Your task to perform on an android device: Go to Yahoo.com Image 0: 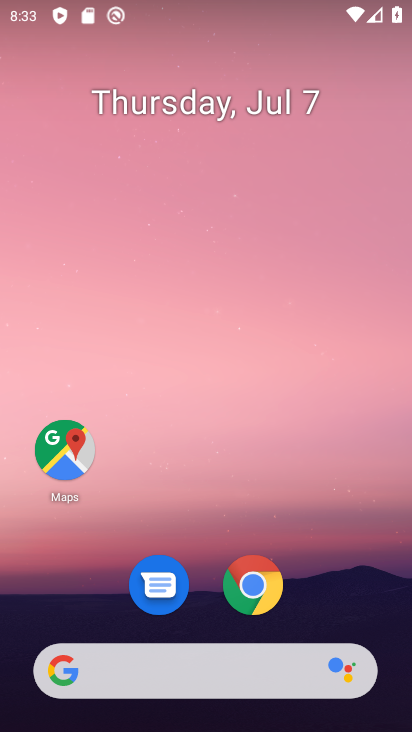
Step 0: drag from (284, 548) to (290, 16)
Your task to perform on an android device: Go to Yahoo.com Image 1: 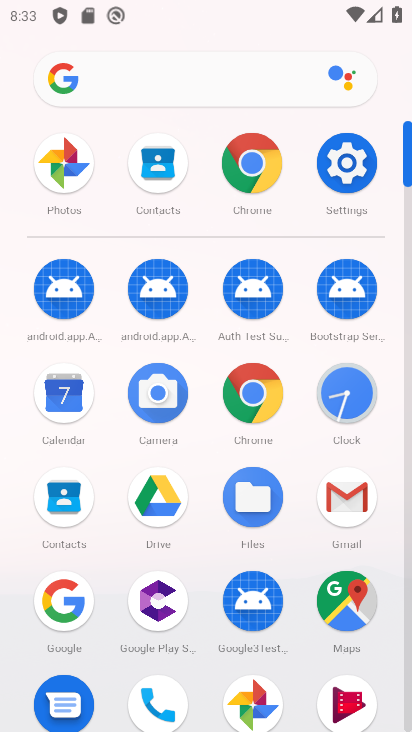
Step 1: click (249, 87)
Your task to perform on an android device: Go to Yahoo.com Image 2: 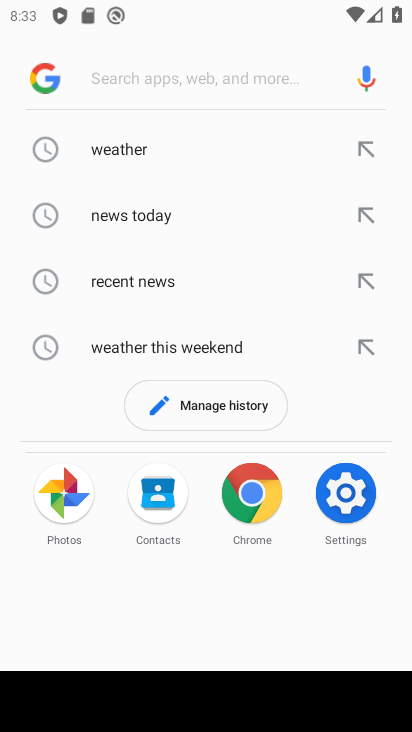
Step 2: type "yahoo.com"
Your task to perform on an android device: Go to Yahoo.com Image 3: 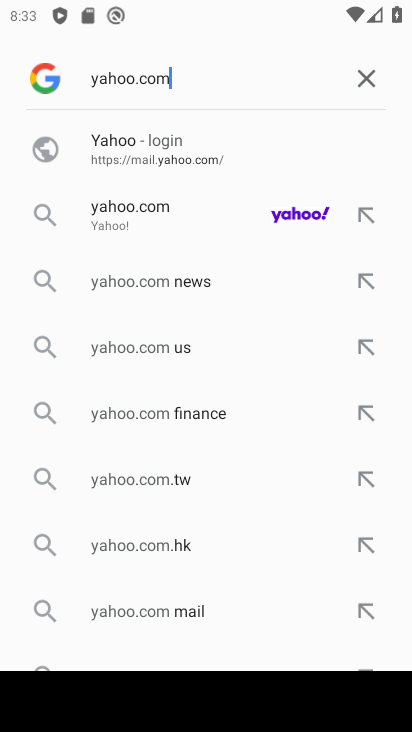
Step 3: click (291, 212)
Your task to perform on an android device: Go to Yahoo.com Image 4: 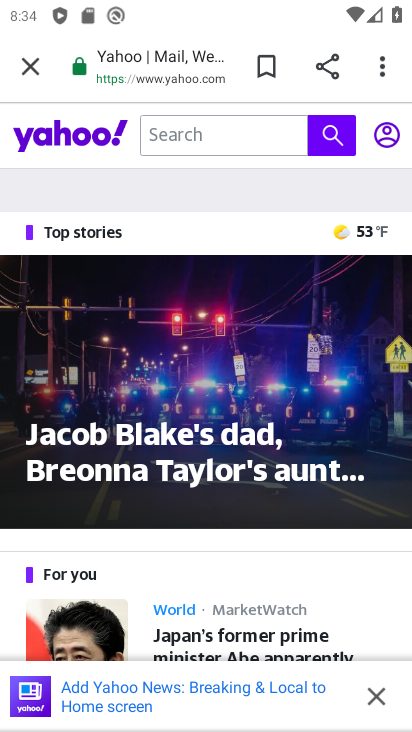
Step 4: task complete